Your task to perform on an android device: change timer sound Image 0: 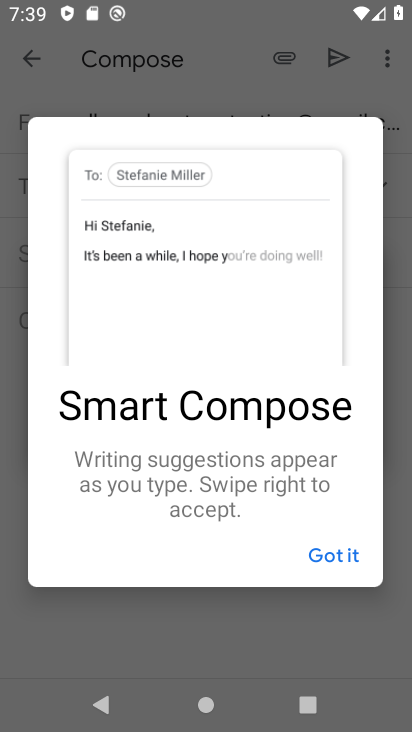
Step 0: press home button
Your task to perform on an android device: change timer sound Image 1: 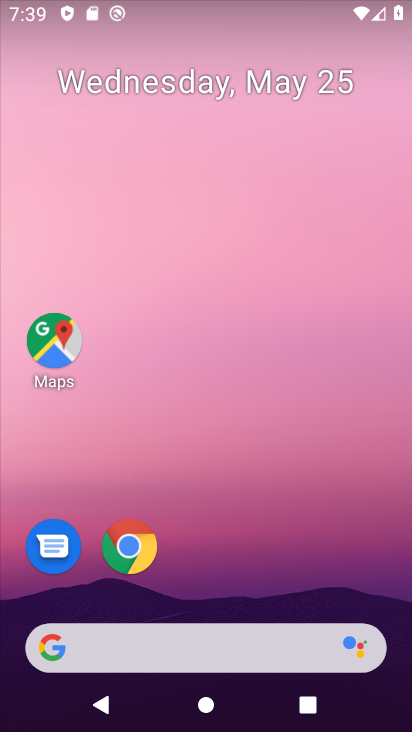
Step 1: drag from (187, 572) to (221, 10)
Your task to perform on an android device: change timer sound Image 2: 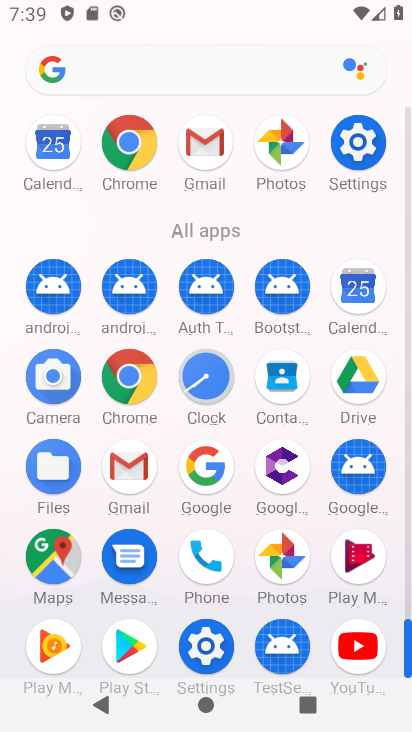
Step 2: click (361, 179)
Your task to perform on an android device: change timer sound Image 3: 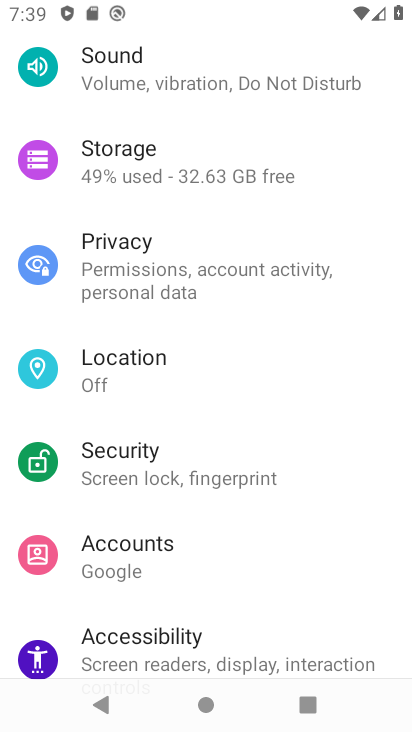
Step 3: press back button
Your task to perform on an android device: change timer sound Image 4: 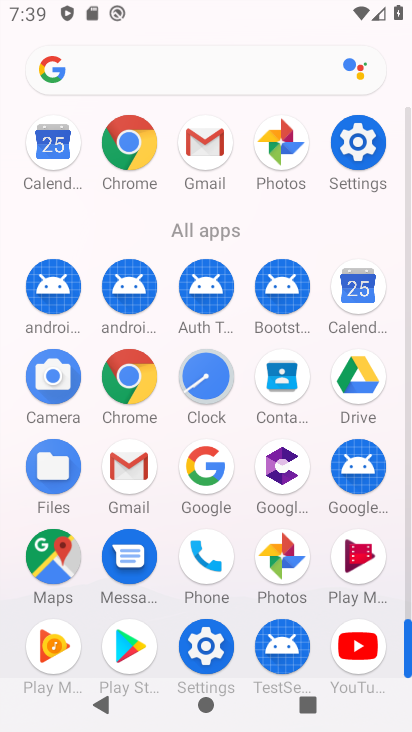
Step 4: click (197, 409)
Your task to perform on an android device: change timer sound Image 5: 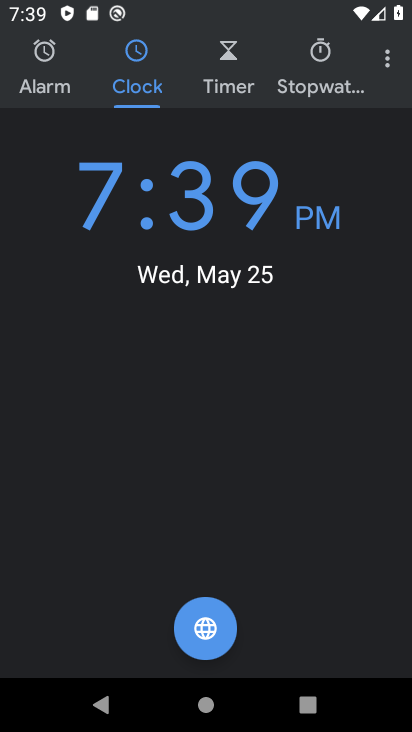
Step 5: click (384, 62)
Your task to perform on an android device: change timer sound Image 6: 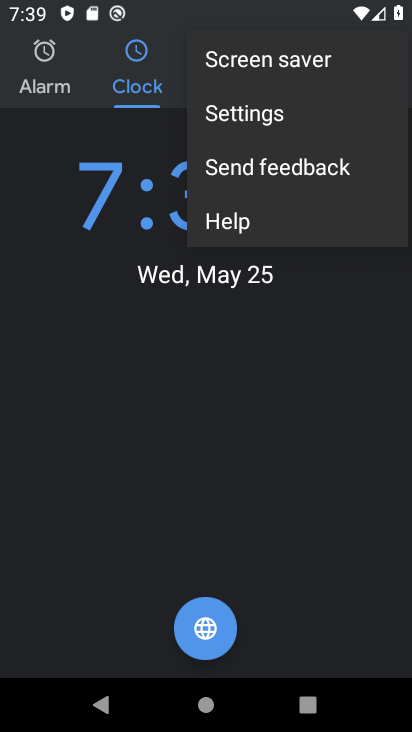
Step 6: click (306, 112)
Your task to perform on an android device: change timer sound Image 7: 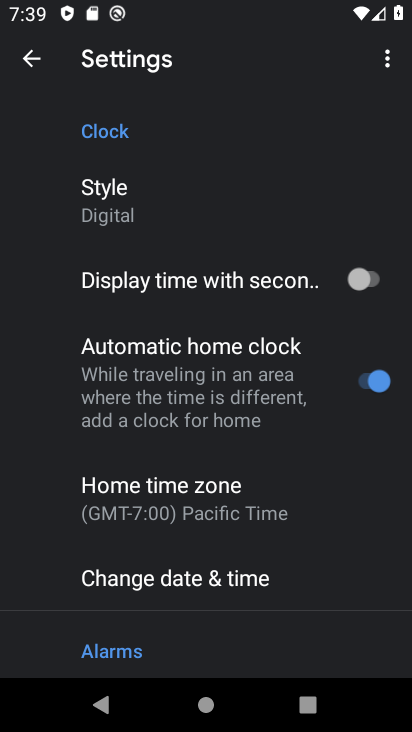
Step 7: drag from (208, 536) to (226, 235)
Your task to perform on an android device: change timer sound Image 8: 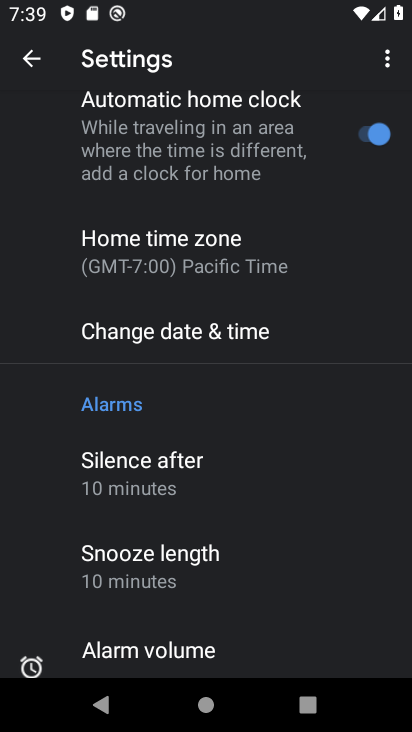
Step 8: drag from (204, 624) to (251, 316)
Your task to perform on an android device: change timer sound Image 9: 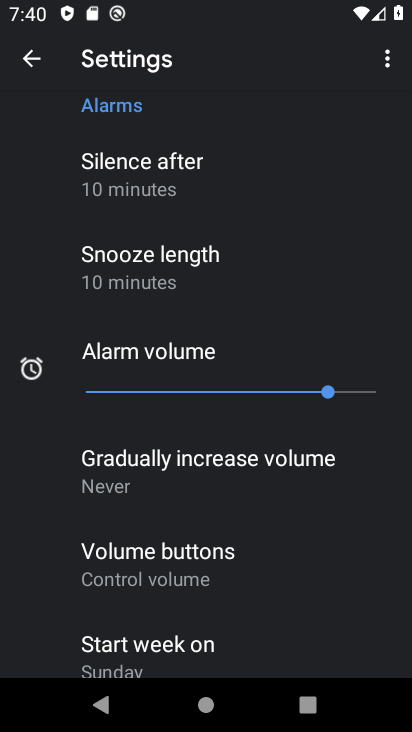
Step 9: drag from (233, 588) to (204, 365)
Your task to perform on an android device: change timer sound Image 10: 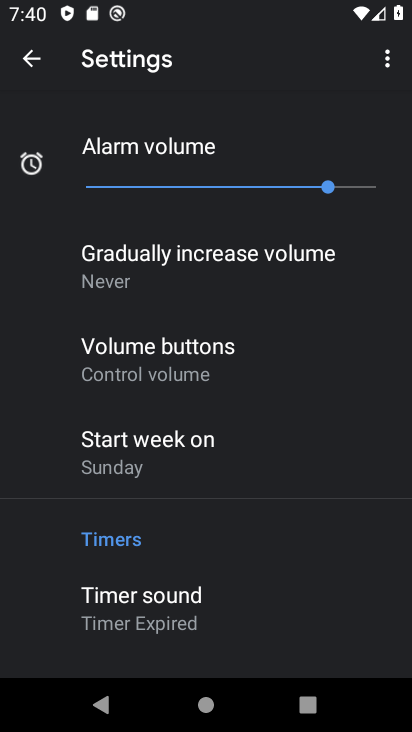
Step 10: drag from (208, 605) to (227, 416)
Your task to perform on an android device: change timer sound Image 11: 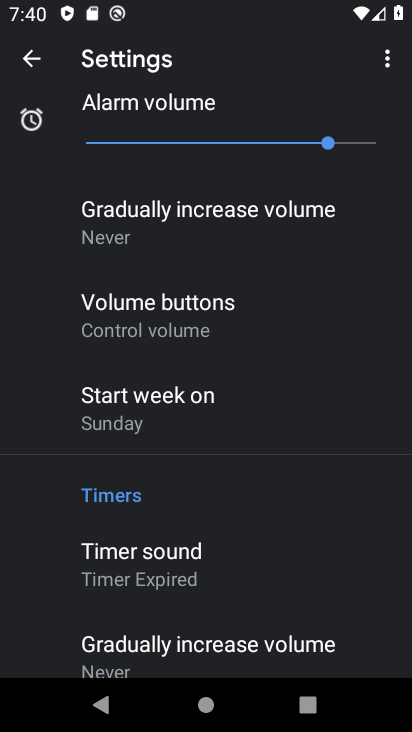
Step 11: click (176, 573)
Your task to perform on an android device: change timer sound Image 12: 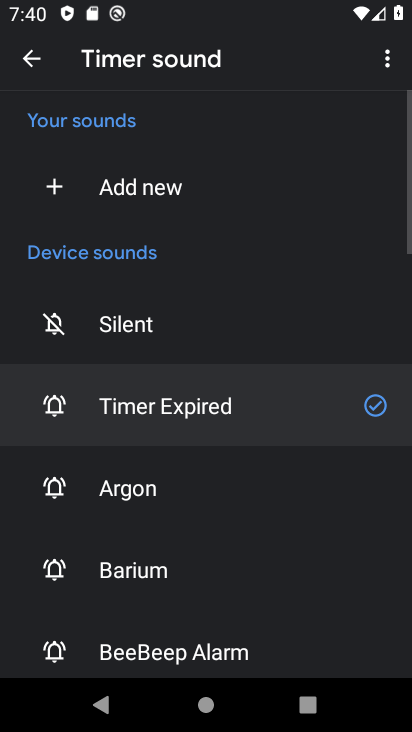
Step 12: click (107, 510)
Your task to perform on an android device: change timer sound Image 13: 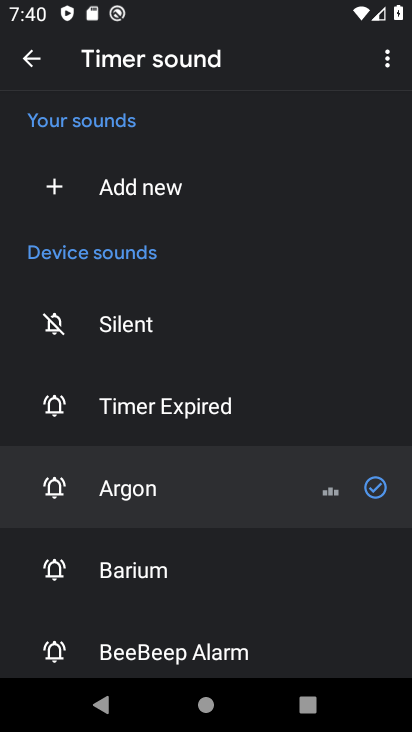
Step 13: task complete